Your task to perform on an android device: Open Youtube and go to "Your channel" Image 0: 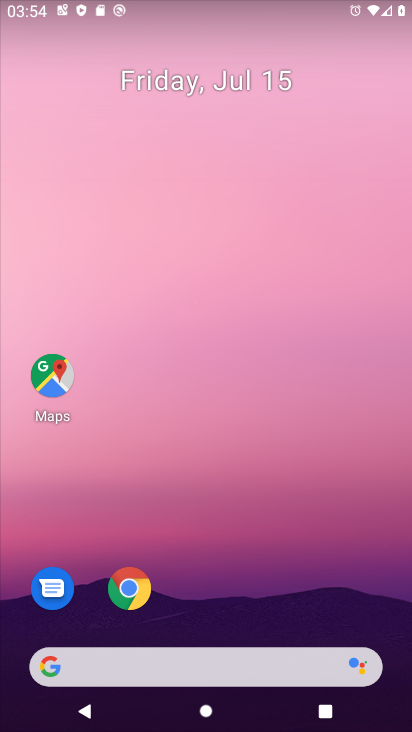
Step 0: drag from (164, 673) to (297, 108)
Your task to perform on an android device: Open Youtube and go to "Your channel" Image 1: 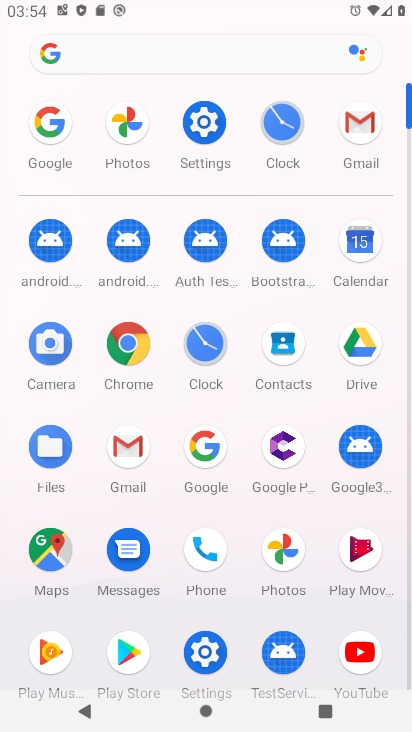
Step 1: click (359, 654)
Your task to perform on an android device: Open Youtube and go to "Your channel" Image 2: 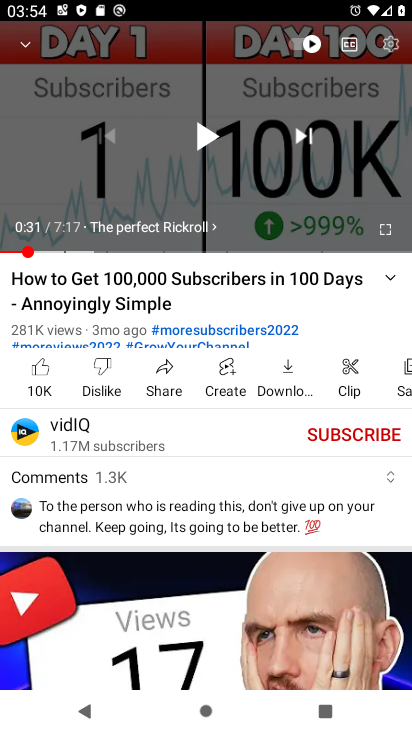
Step 2: press back button
Your task to perform on an android device: Open Youtube and go to "Your channel" Image 3: 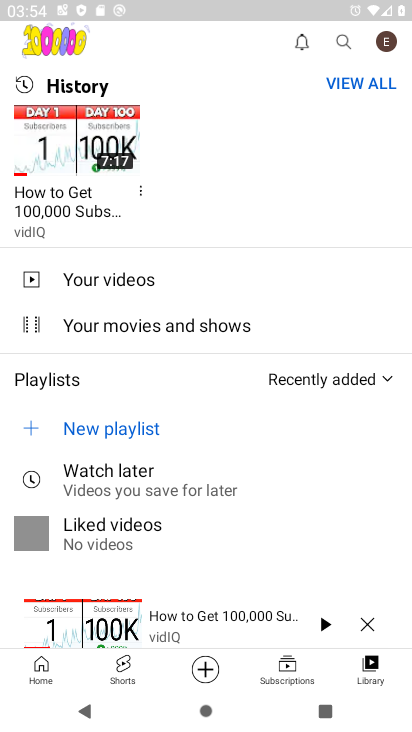
Step 3: click (367, 621)
Your task to perform on an android device: Open Youtube and go to "Your channel" Image 4: 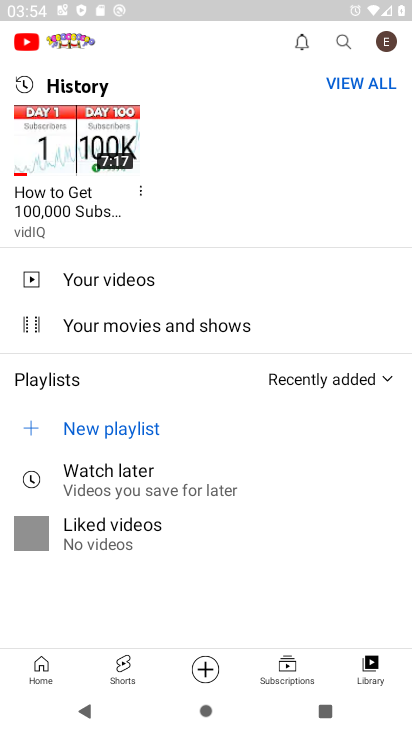
Step 4: click (388, 43)
Your task to perform on an android device: Open Youtube and go to "Your channel" Image 5: 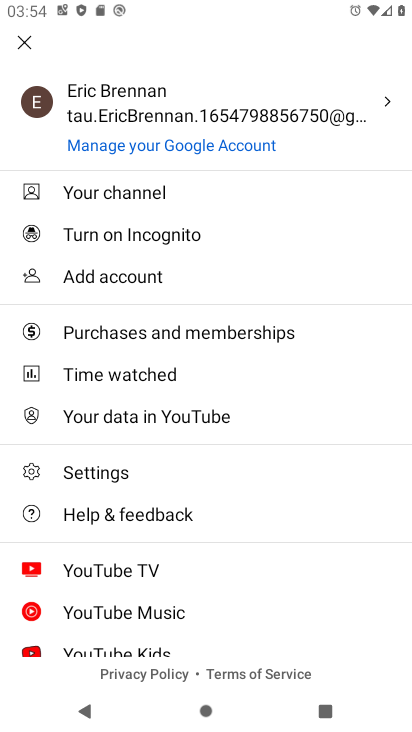
Step 5: click (134, 189)
Your task to perform on an android device: Open Youtube and go to "Your channel" Image 6: 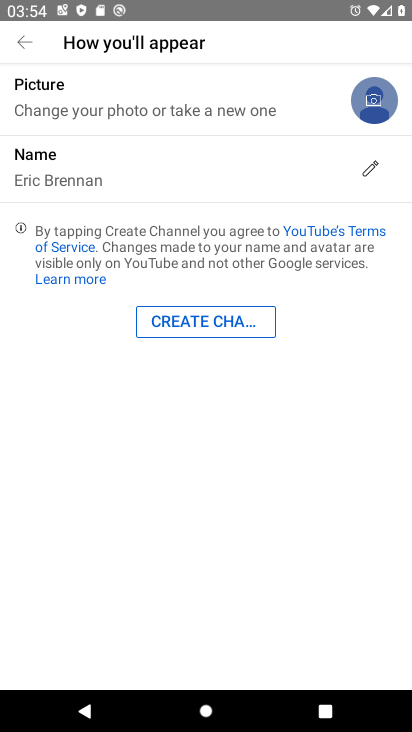
Step 6: task complete